Your task to perform on an android device: toggle pop-ups in chrome Image 0: 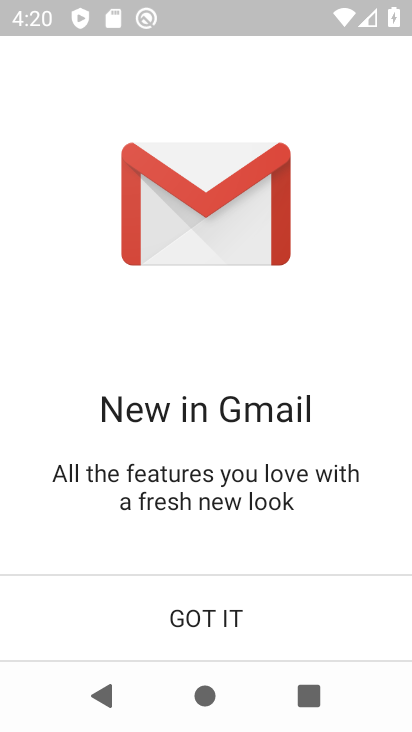
Step 0: press home button
Your task to perform on an android device: toggle pop-ups in chrome Image 1: 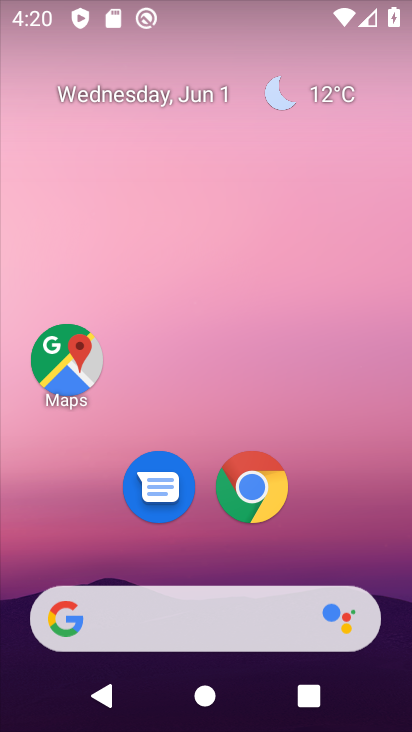
Step 1: click (266, 501)
Your task to perform on an android device: toggle pop-ups in chrome Image 2: 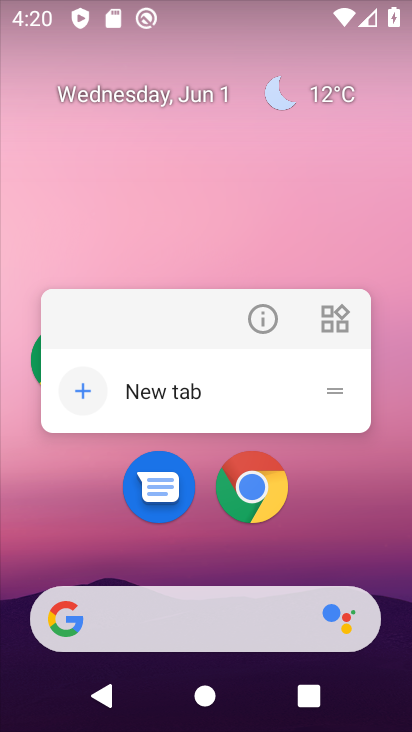
Step 2: click (254, 507)
Your task to perform on an android device: toggle pop-ups in chrome Image 3: 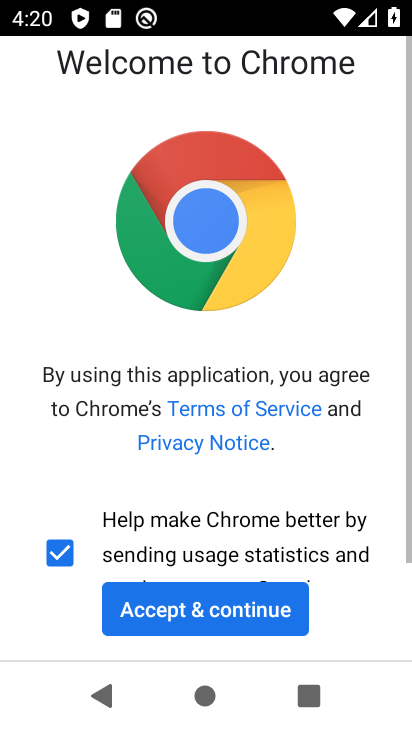
Step 3: click (255, 617)
Your task to perform on an android device: toggle pop-ups in chrome Image 4: 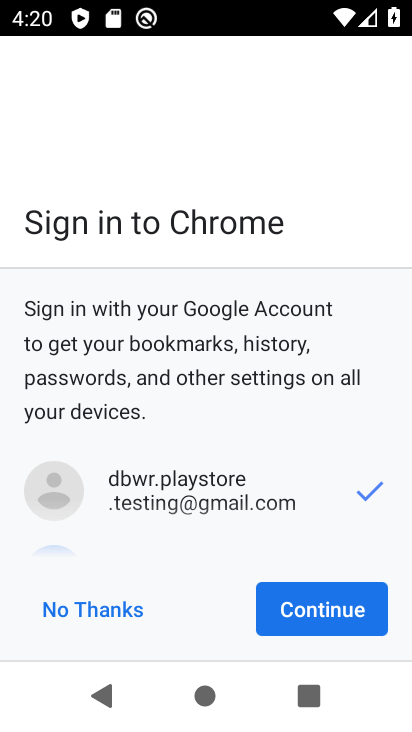
Step 4: click (333, 621)
Your task to perform on an android device: toggle pop-ups in chrome Image 5: 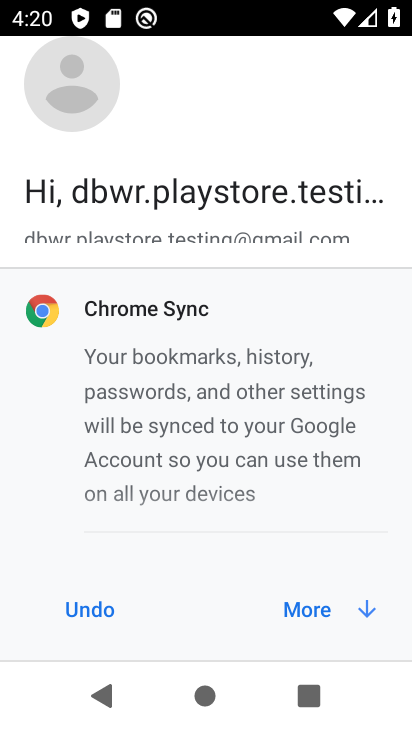
Step 5: click (333, 621)
Your task to perform on an android device: toggle pop-ups in chrome Image 6: 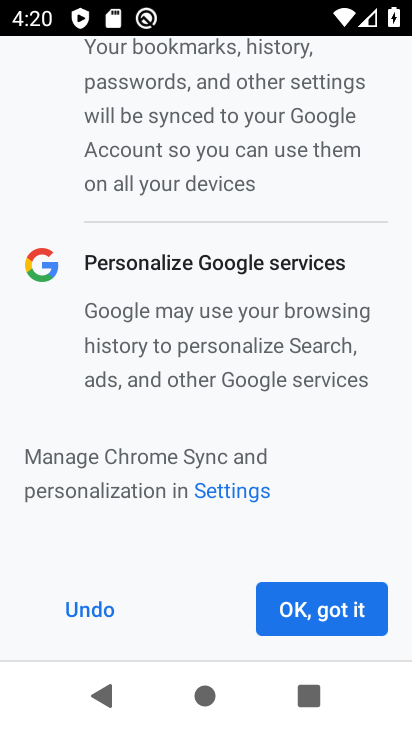
Step 6: click (333, 621)
Your task to perform on an android device: toggle pop-ups in chrome Image 7: 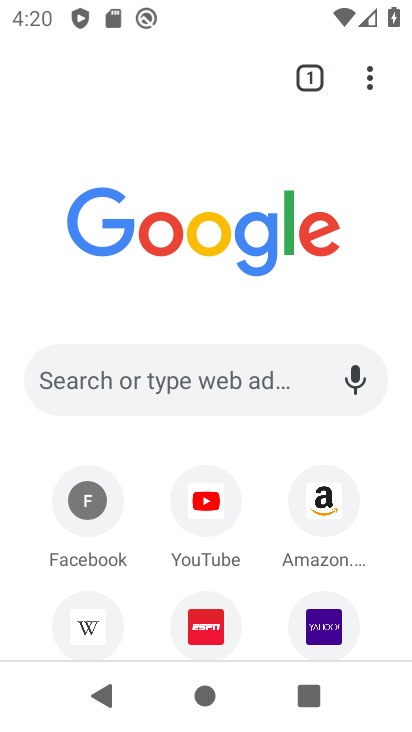
Step 7: drag from (374, 72) to (263, 562)
Your task to perform on an android device: toggle pop-ups in chrome Image 8: 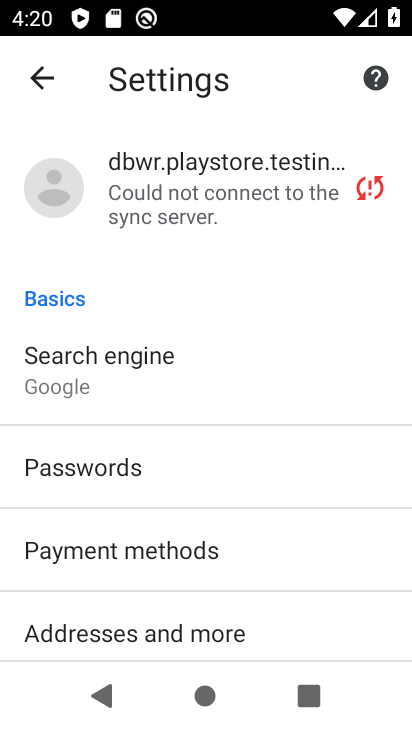
Step 8: drag from (214, 627) to (282, 337)
Your task to perform on an android device: toggle pop-ups in chrome Image 9: 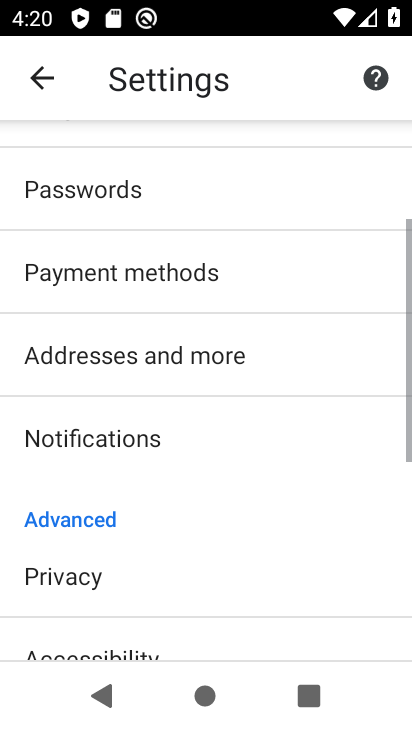
Step 9: drag from (159, 596) to (228, 334)
Your task to perform on an android device: toggle pop-ups in chrome Image 10: 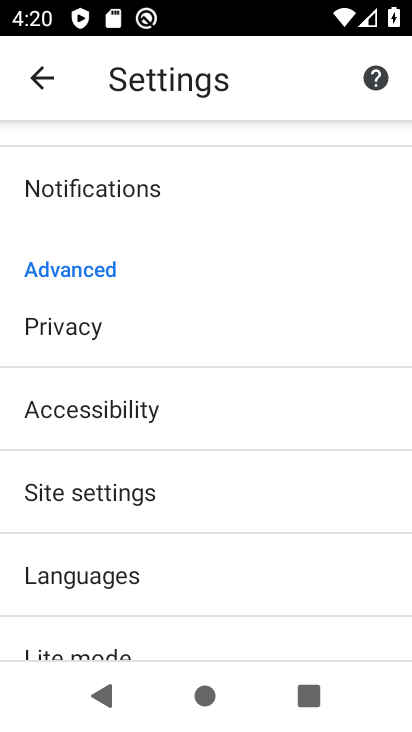
Step 10: click (172, 494)
Your task to perform on an android device: toggle pop-ups in chrome Image 11: 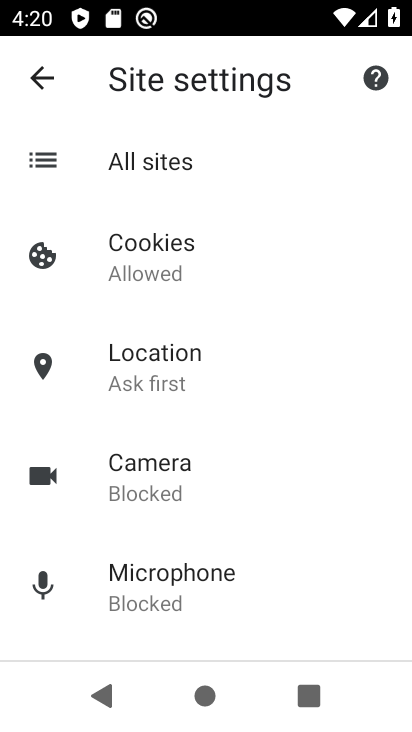
Step 11: drag from (189, 571) to (263, 269)
Your task to perform on an android device: toggle pop-ups in chrome Image 12: 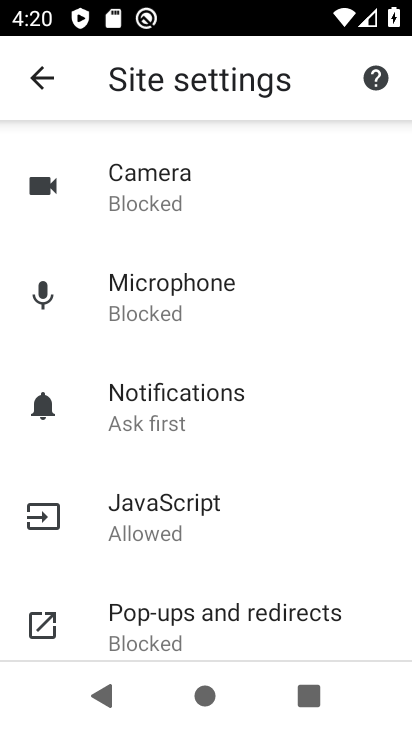
Step 12: click (199, 520)
Your task to perform on an android device: toggle pop-ups in chrome Image 13: 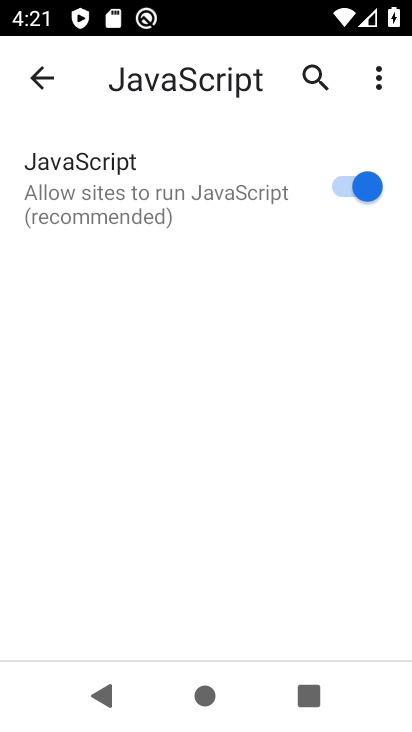
Step 13: click (338, 193)
Your task to perform on an android device: toggle pop-ups in chrome Image 14: 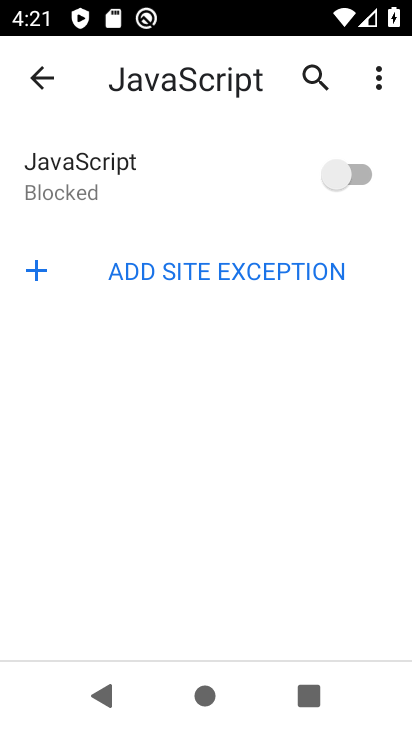
Step 14: task complete